Your task to perform on an android device: Open my contact list Image 0: 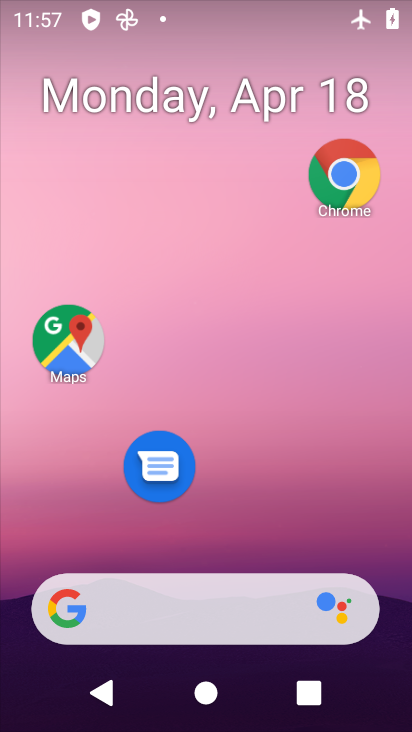
Step 0: drag from (266, 530) to (329, 105)
Your task to perform on an android device: Open my contact list Image 1: 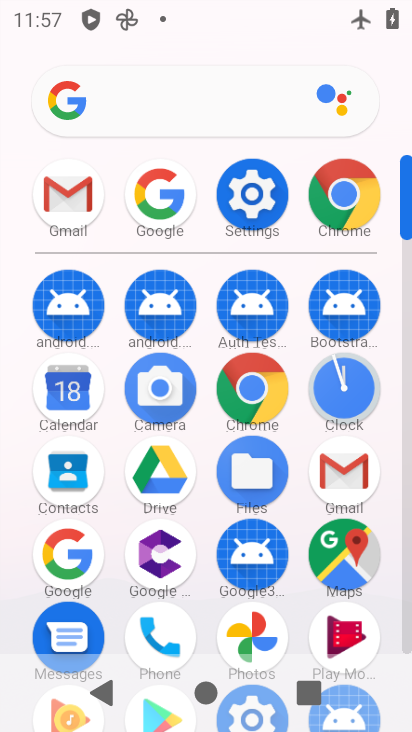
Step 1: click (83, 486)
Your task to perform on an android device: Open my contact list Image 2: 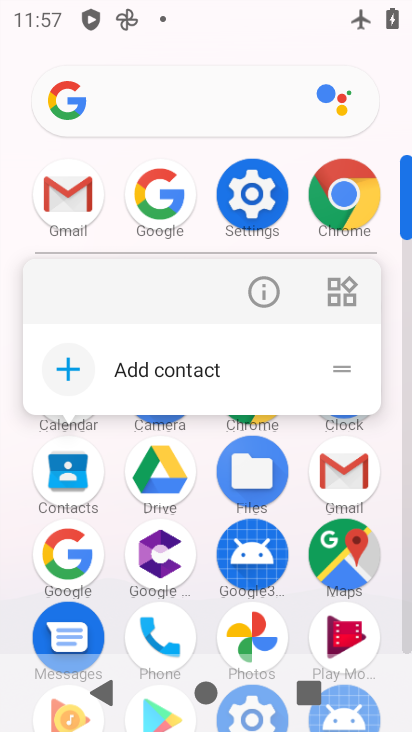
Step 2: click (91, 485)
Your task to perform on an android device: Open my contact list Image 3: 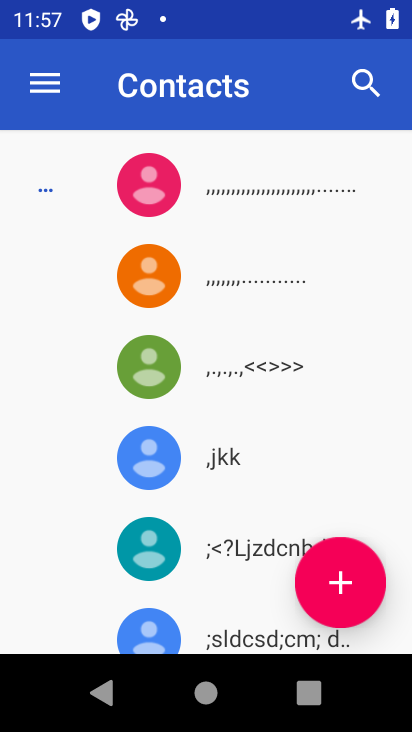
Step 3: task complete